Your task to perform on an android device: Show the shopping cart on costco.com. Search for "jbl charge 4" on costco.com, select the first entry, add it to the cart, then select checkout. Image 0: 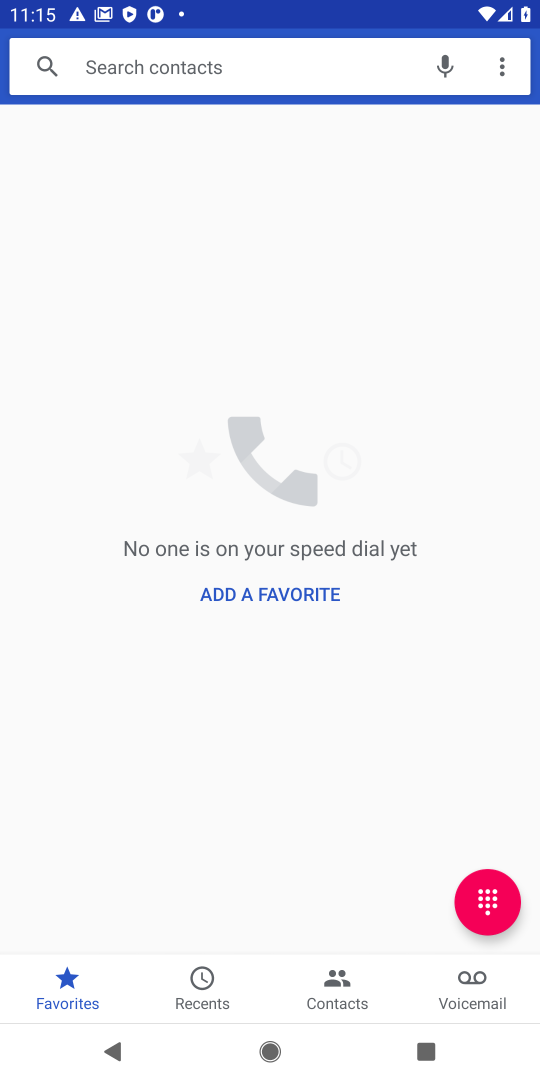
Step 0: press home button
Your task to perform on an android device: Show the shopping cart on costco.com. Search for "jbl charge 4" on costco.com, select the first entry, add it to the cart, then select checkout. Image 1: 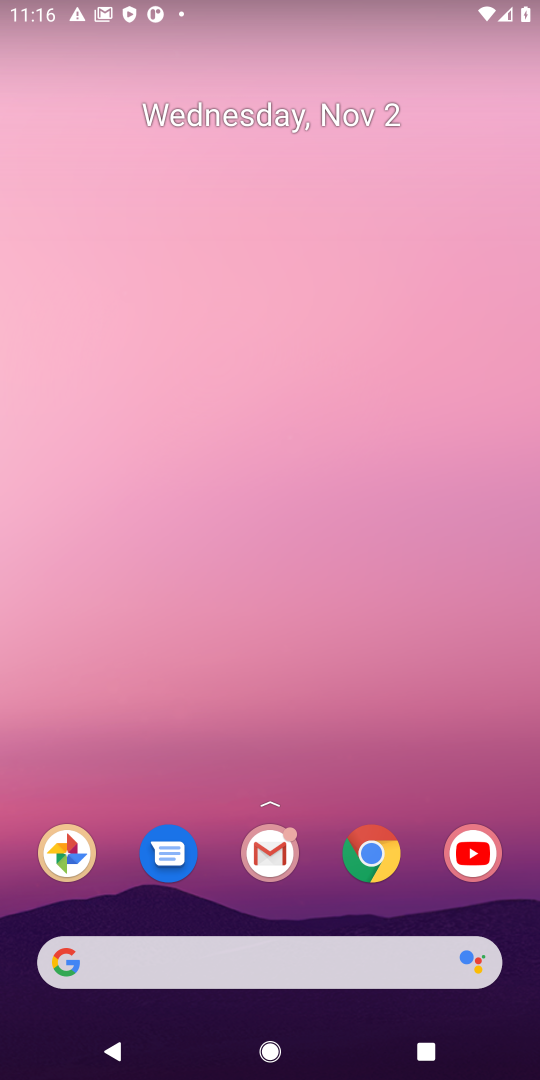
Step 1: click (369, 861)
Your task to perform on an android device: Show the shopping cart on costco.com. Search for "jbl charge 4" on costco.com, select the first entry, add it to the cart, then select checkout. Image 2: 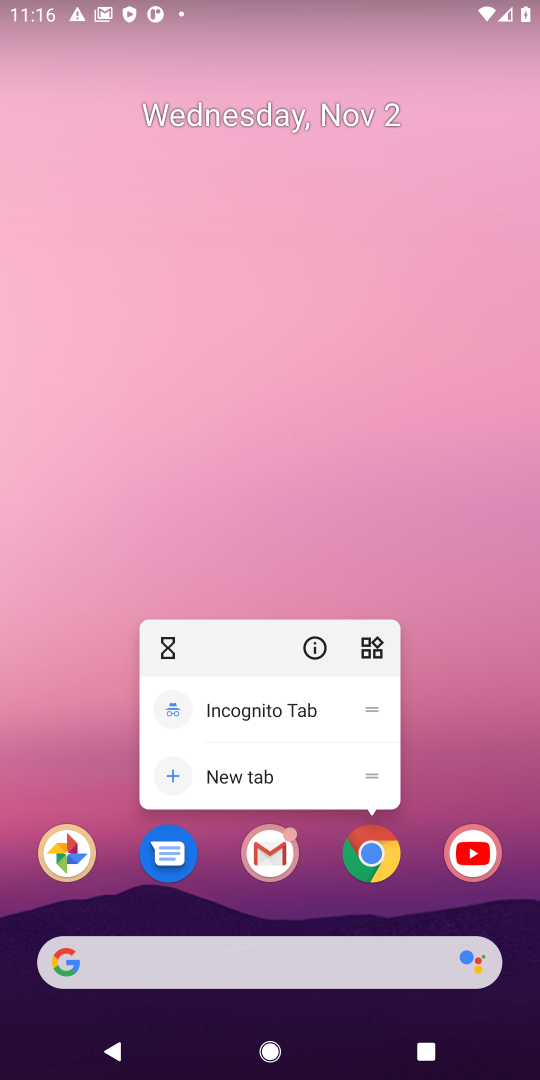
Step 2: click (369, 862)
Your task to perform on an android device: Show the shopping cart on costco.com. Search for "jbl charge 4" on costco.com, select the first entry, add it to the cart, then select checkout. Image 3: 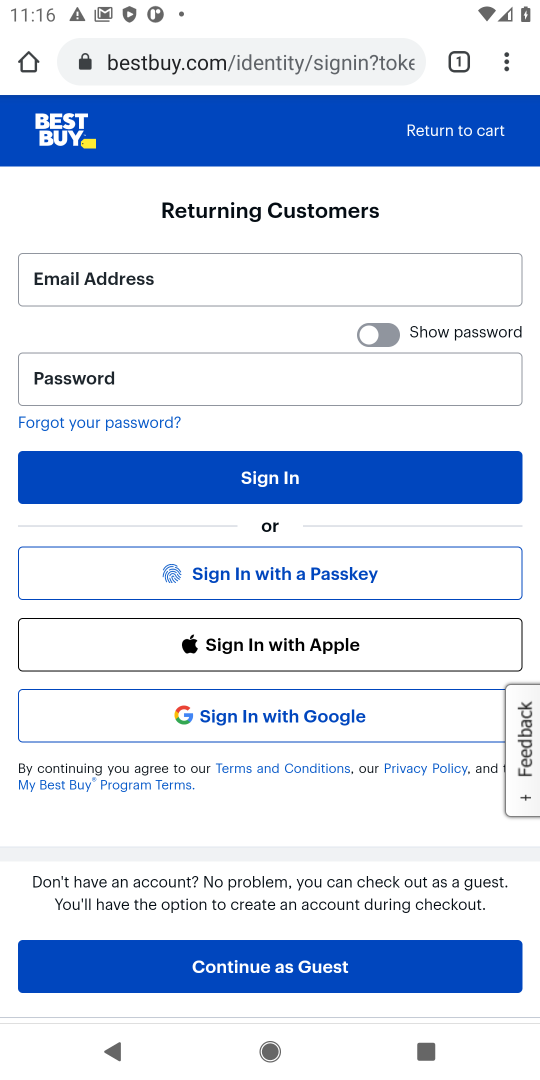
Step 3: click (305, 57)
Your task to perform on an android device: Show the shopping cart on costco.com. Search for "jbl charge 4" on costco.com, select the first entry, add it to the cart, then select checkout. Image 4: 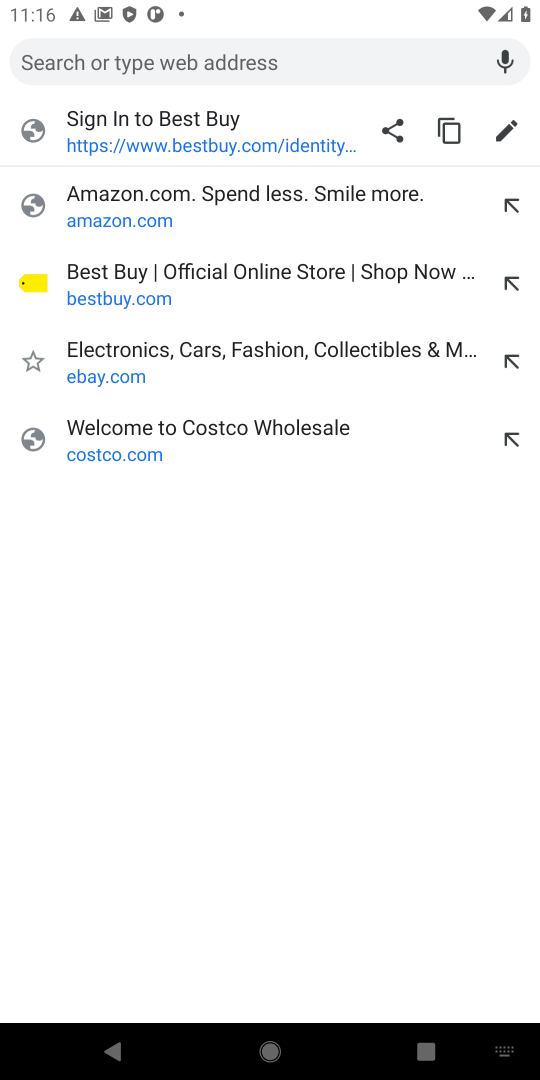
Step 4: type " costco.com"
Your task to perform on an android device: Show the shopping cart on costco.com. Search for "jbl charge 4" on costco.com, select the first entry, add it to the cart, then select checkout. Image 5: 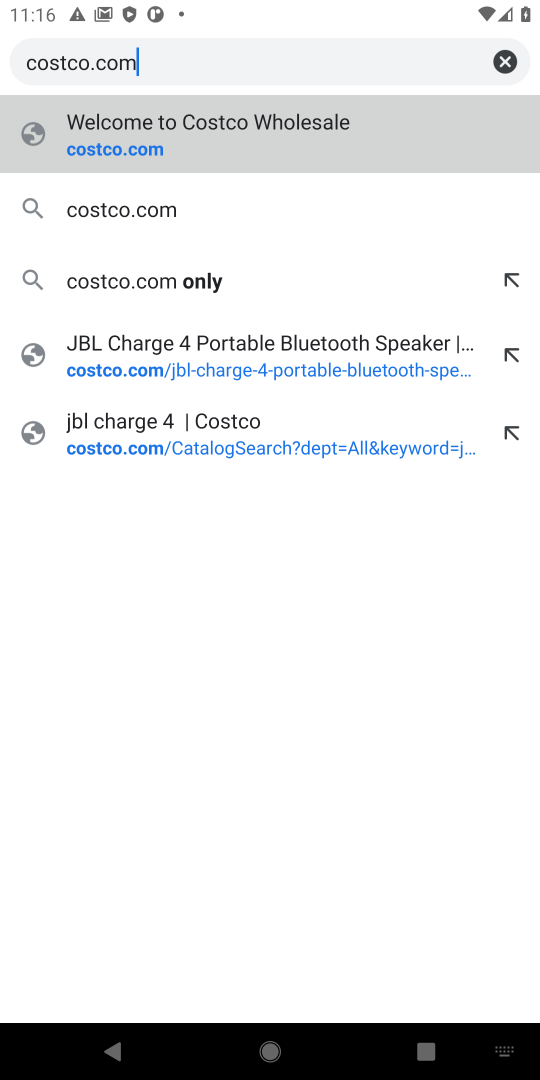
Step 5: press enter
Your task to perform on an android device: Show the shopping cart on costco.com. Search for "jbl charge 4" on costco.com, select the first entry, add it to the cart, then select checkout. Image 6: 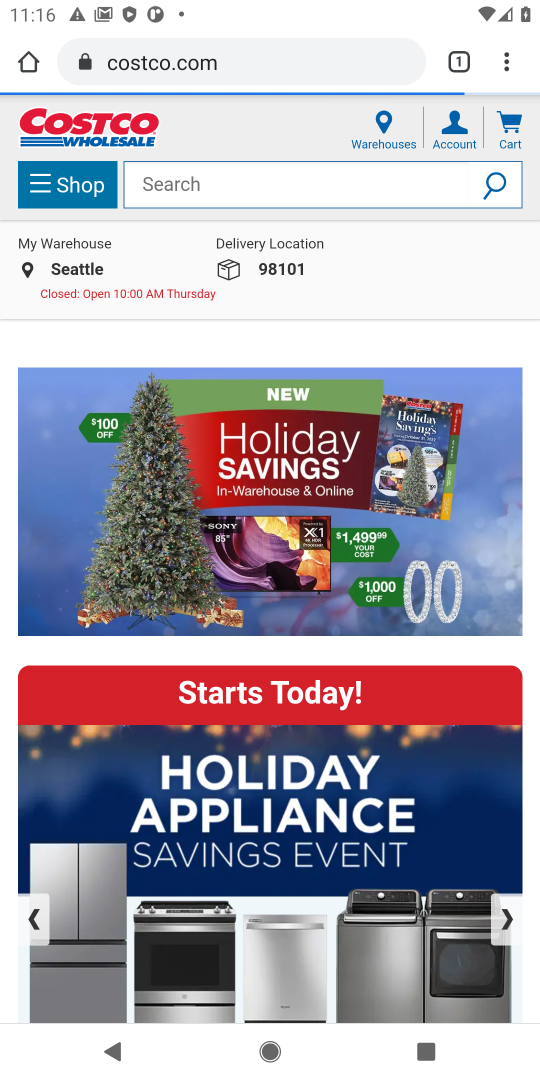
Step 6: click (289, 187)
Your task to perform on an android device: Show the shopping cart on costco.com. Search for "jbl charge 4" on costco.com, select the first entry, add it to the cart, then select checkout. Image 7: 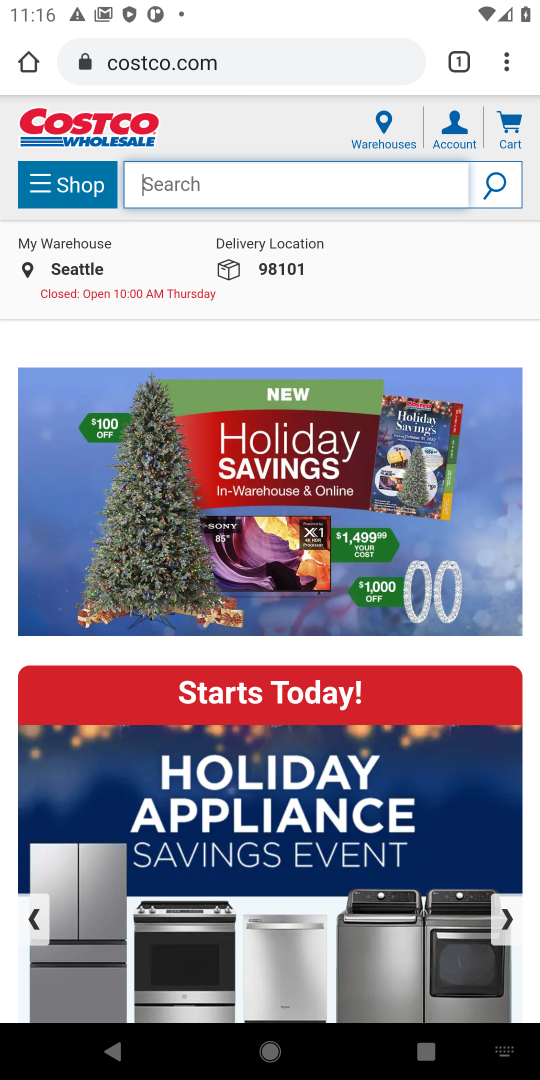
Step 7: type "jbl charge 4"
Your task to perform on an android device: Show the shopping cart on costco.com. Search for "jbl charge 4" on costco.com, select the first entry, add it to the cart, then select checkout. Image 8: 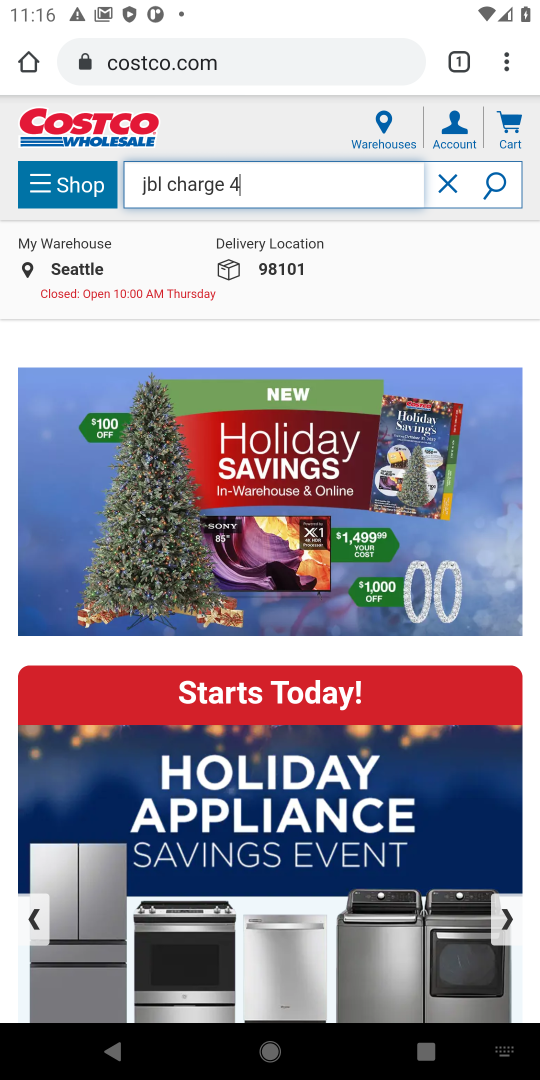
Step 8: press enter
Your task to perform on an android device: Show the shopping cart on costco.com. Search for "jbl charge 4" on costco.com, select the first entry, add it to the cart, then select checkout. Image 9: 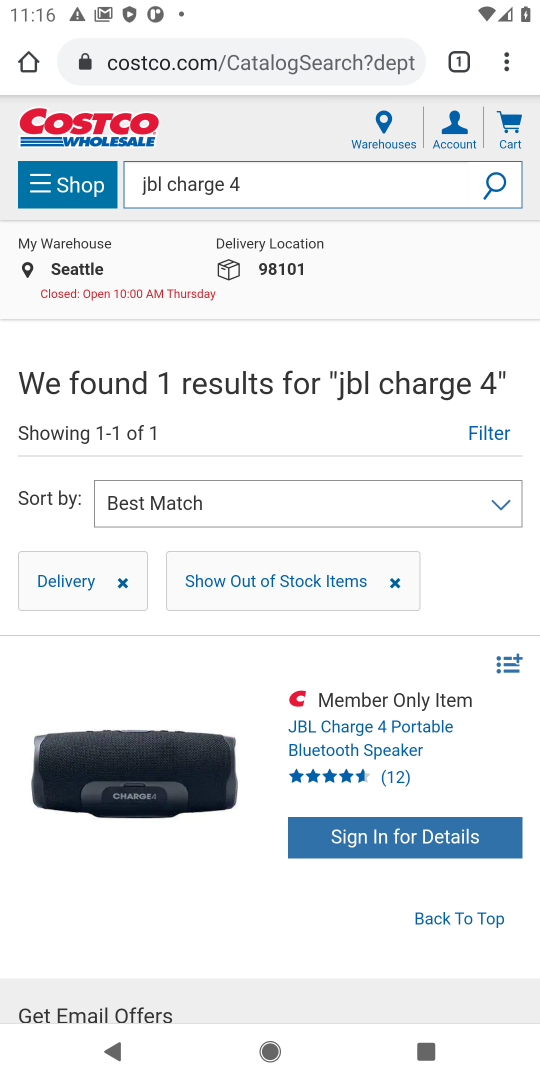
Step 9: click (366, 756)
Your task to perform on an android device: Show the shopping cart on costco.com. Search for "jbl charge 4" on costco.com, select the first entry, add it to the cart, then select checkout. Image 10: 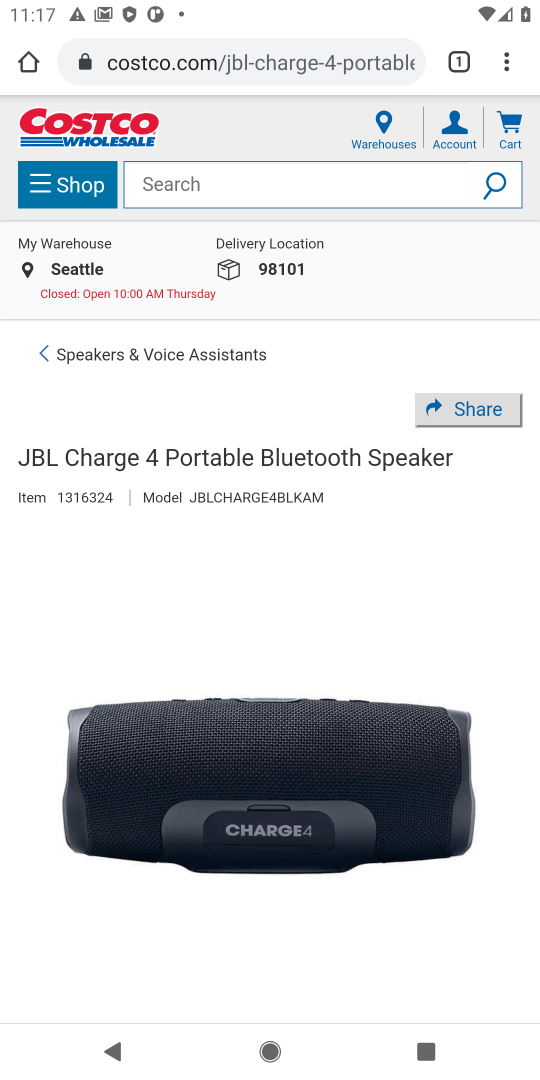
Step 10: task complete